Your task to perform on an android device: open chrome and create a bookmark for the current page Image 0: 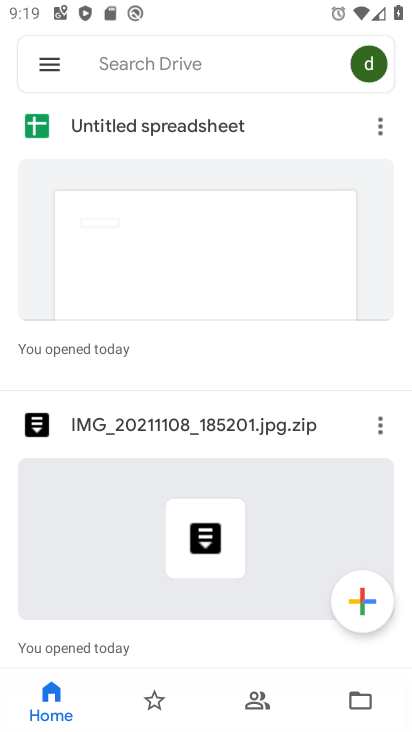
Step 0: press home button
Your task to perform on an android device: open chrome and create a bookmark for the current page Image 1: 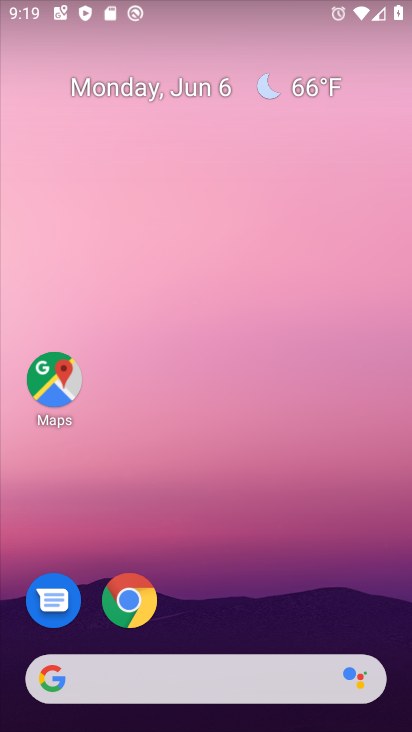
Step 1: click (129, 601)
Your task to perform on an android device: open chrome and create a bookmark for the current page Image 2: 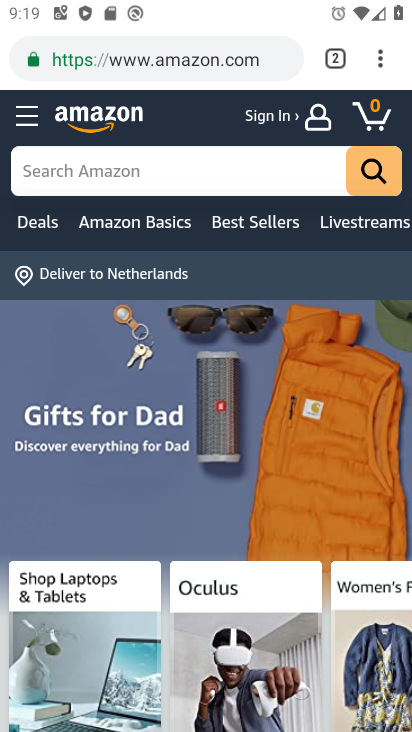
Step 2: click (388, 62)
Your task to perform on an android device: open chrome and create a bookmark for the current page Image 3: 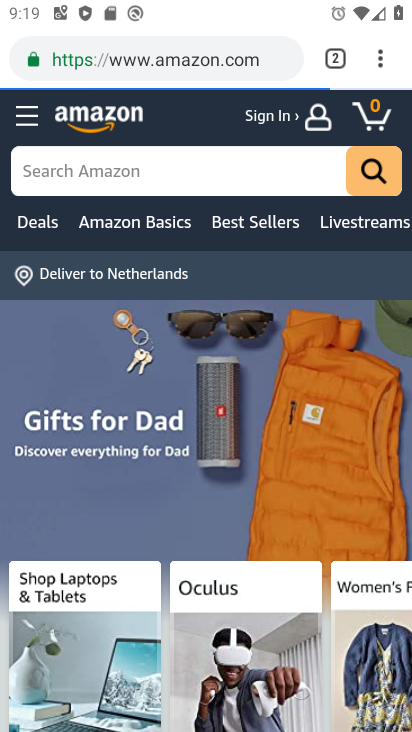
Step 3: click (381, 57)
Your task to perform on an android device: open chrome and create a bookmark for the current page Image 4: 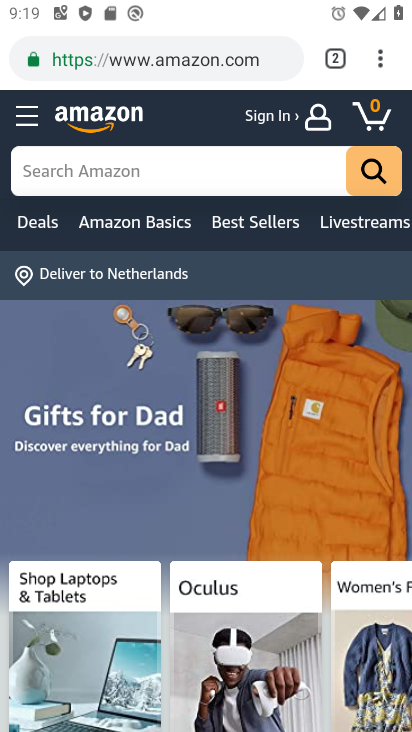
Step 4: click (381, 57)
Your task to perform on an android device: open chrome and create a bookmark for the current page Image 5: 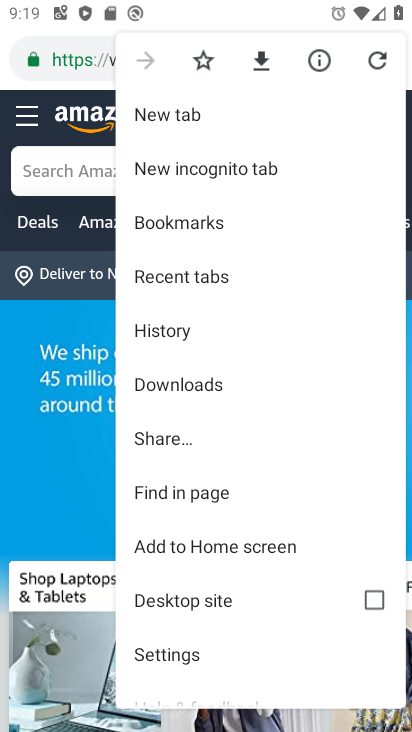
Step 5: click (151, 233)
Your task to perform on an android device: open chrome and create a bookmark for the current page Image 6: 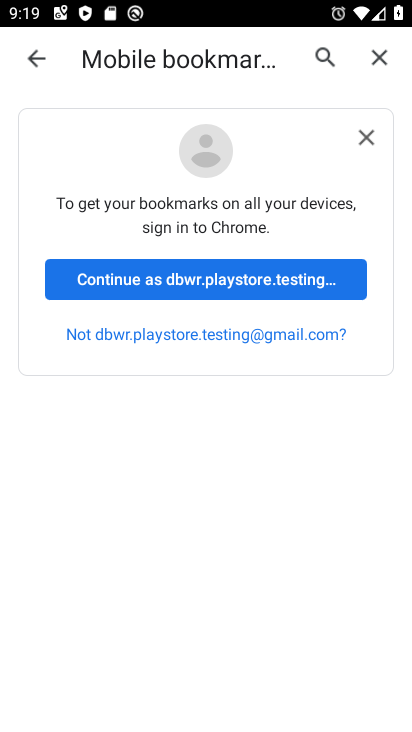
Step 6: click (358, 139)
Your task to perform on an android device: open chrome and create a bookmark for the current page Image 7: 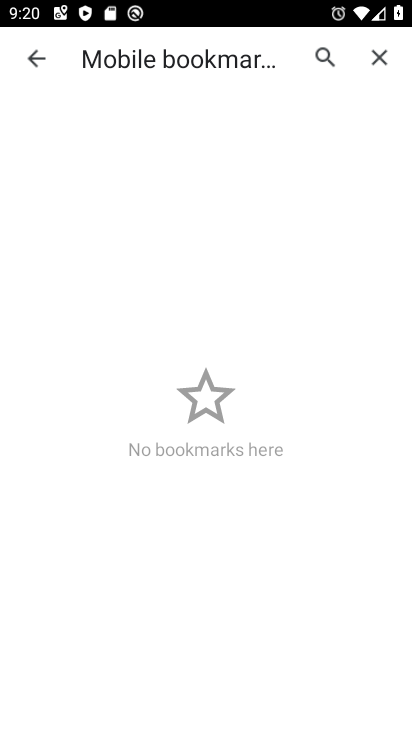
Step 7: task complete